Your task to perform on an android device: turn on bluetooth scan Image 0: 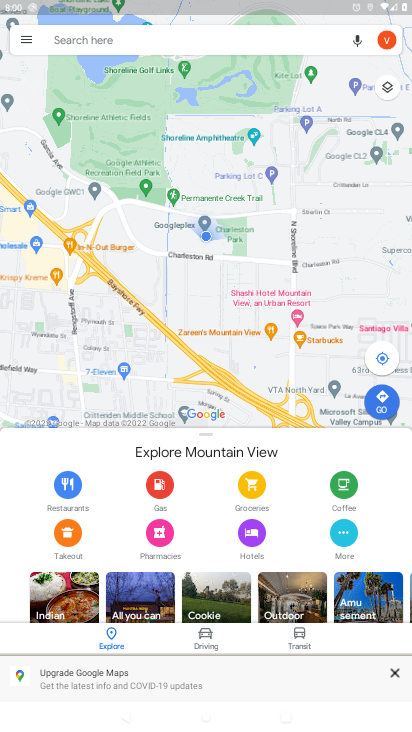
Step 0: press home button
Your task to perform on an android device: turn on bluetooth scan Image 1: 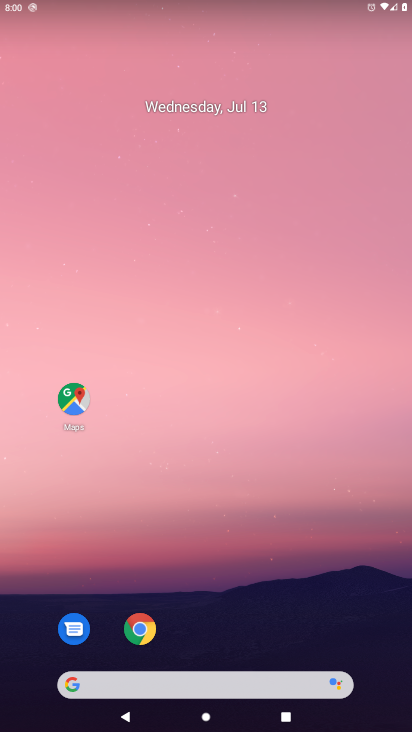
Step 1: drag from (51, 592) to (194, 145)
Your task to perform on an android device: turn on bluetooth scan Image 2: 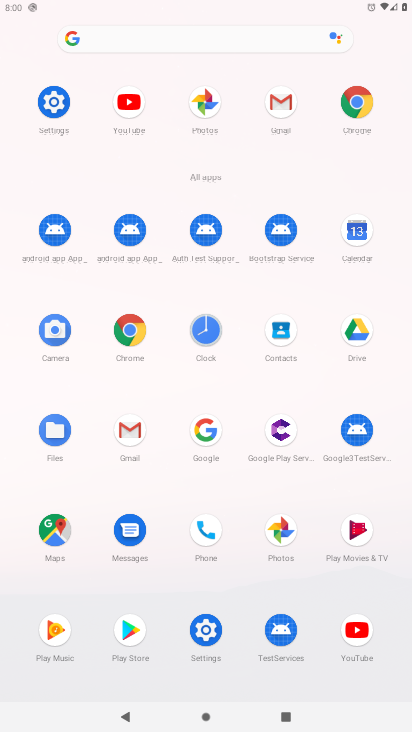
Step 2: click (209, 637)
Your task to perform on an android device: turn on bluetooth scan Image 3: 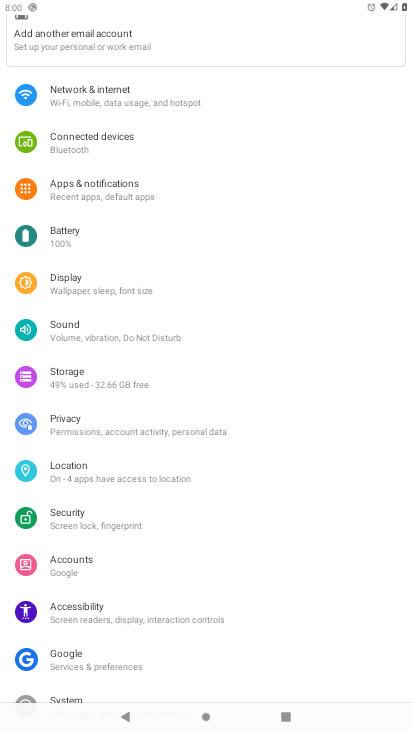
Step 3: click (105, 141)
Your task to perform on an android device: turn on bluetooth scan Image 4: 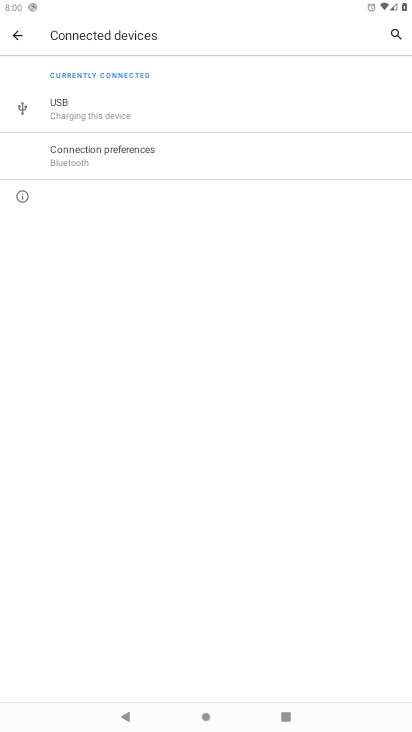
Step 4: click (109, 160)
Your task to perform on an android device: turn on bluetooth scan Image 5: 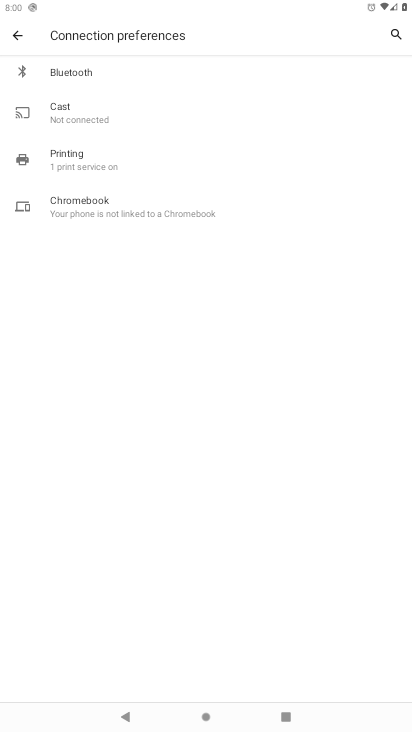
Step 5: click (106, 69)
Your task to perform on an android device: turn on bluetooth scan Image 6: 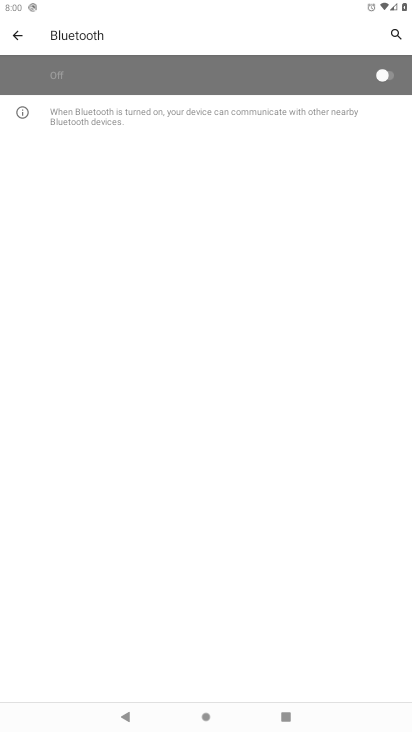
Step 6: click (382, 72)
Your task to perform on an android device: turn on bluetooth scan Image 7: 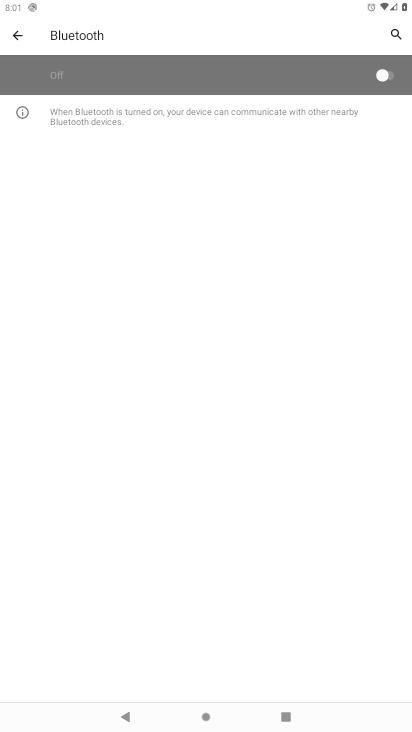
Step 7: task complete